Your task to perform on an android device: change text size in settings app Image 0: 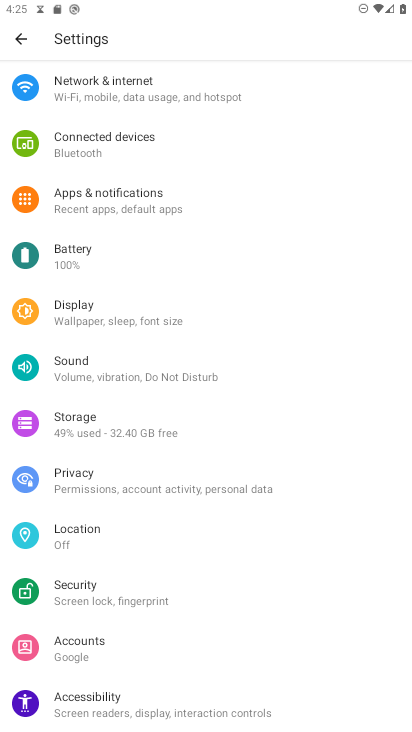
Step 0: click (153, 325)
Your task to perform on an android device: change text size in settings app Image 1: 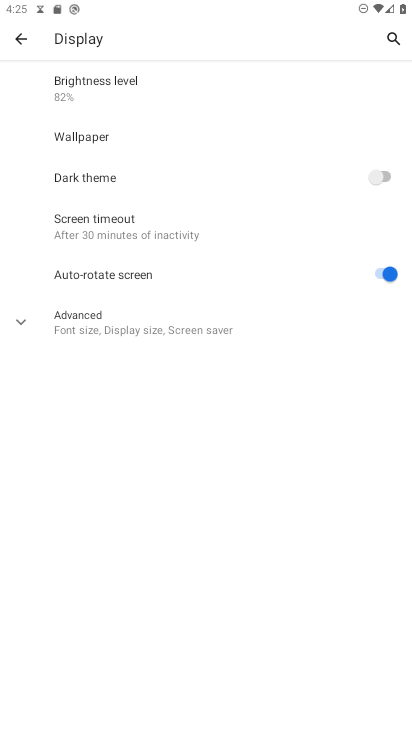
Step 1: click (81, 327)
Your task to perform on an android device: change text size in settings app Image 2: 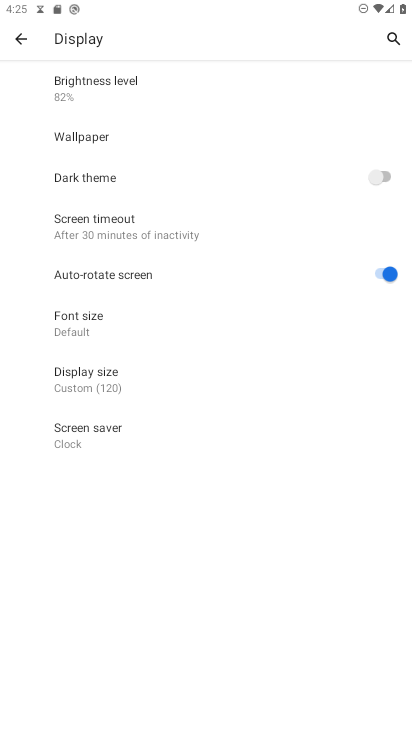
Step 2: click (52, 313)
Your task to perform on an android device: change text size in settings app Image 3: 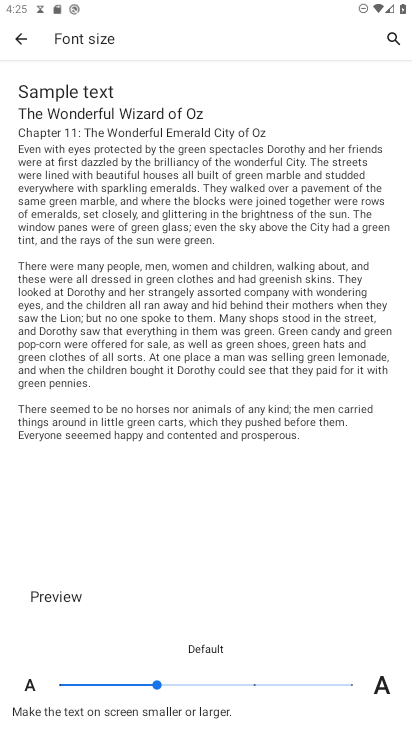
Step 3: click (71, 685)
Your task to perform on an android device: change text size in settings app Image 4: 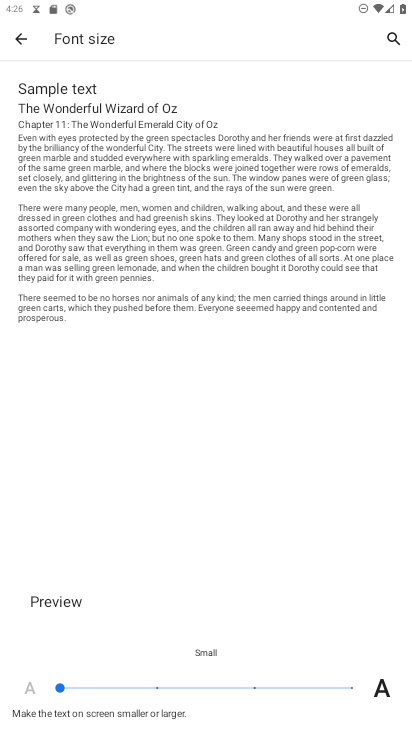
Step 4: task complete